Your task to perform on an android device: Open eBay Image 0: 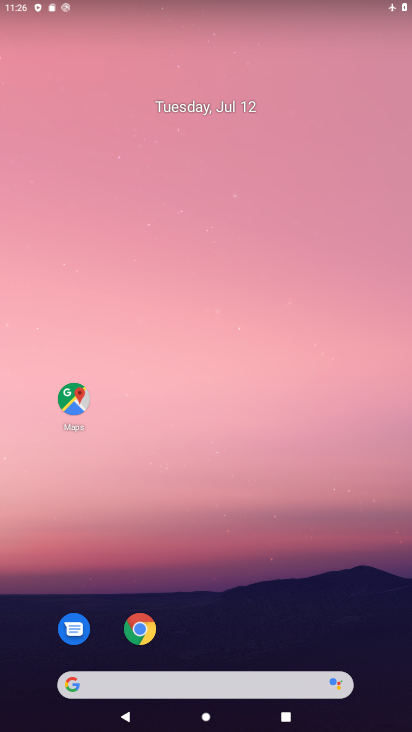
Step 0: click (148, 628)
Your task to perform on an android device: Open eBay Image 1: 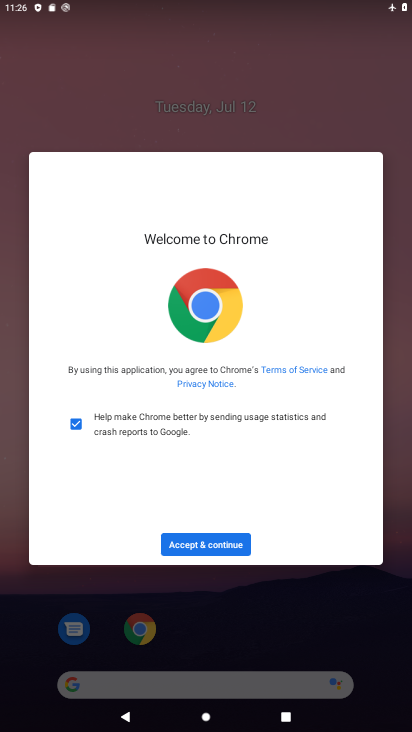
Step 1: click (234, 551)
Your task to perform on an android device: Open eBay Image 2: 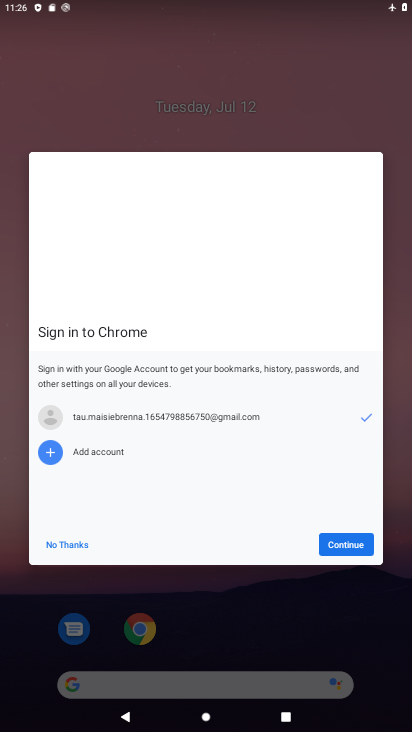
Step 2: click (354, 539)
Your task to perform on an android device: Open eBay Image 3: 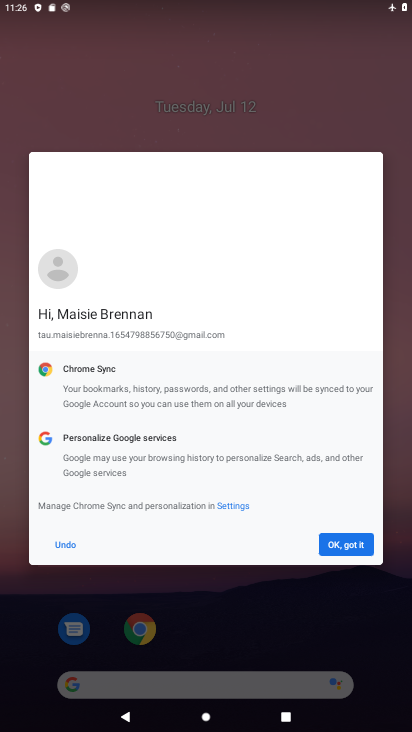
Step 3: click (354, 539)
Your task to perform on an android device: Open eBay Image 4: 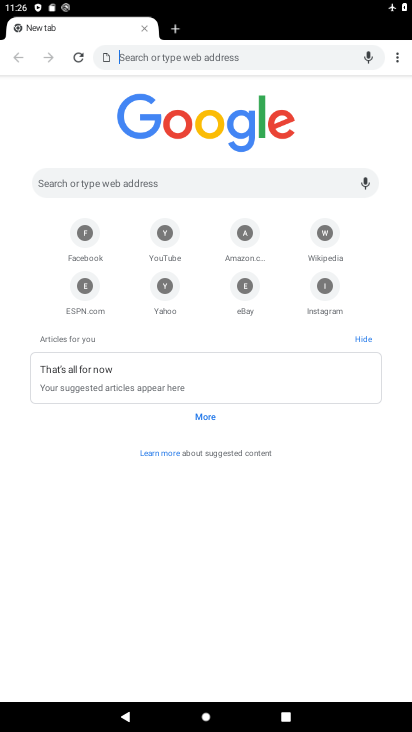
Step 4: click (243, 297)
Your task to perform on an android device: Open eBay Image 5: 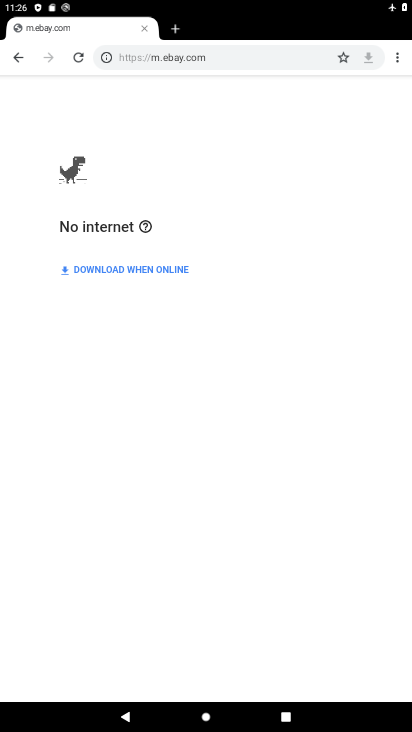
Step 5: task complete